Your task to perform on an android device: Go to Maps Image 0: 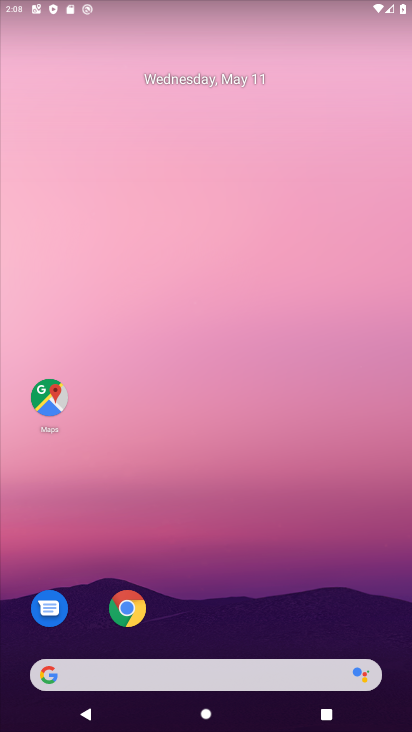
Step 0: click (46, 408)
Your task to perform on an android device: Go to Maps Image 1: 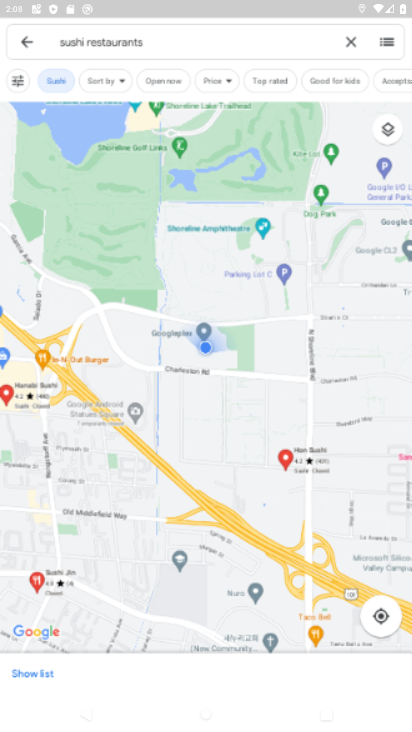
Step 1: task complete